Your task to perform on an android device: check google app version Image 0: 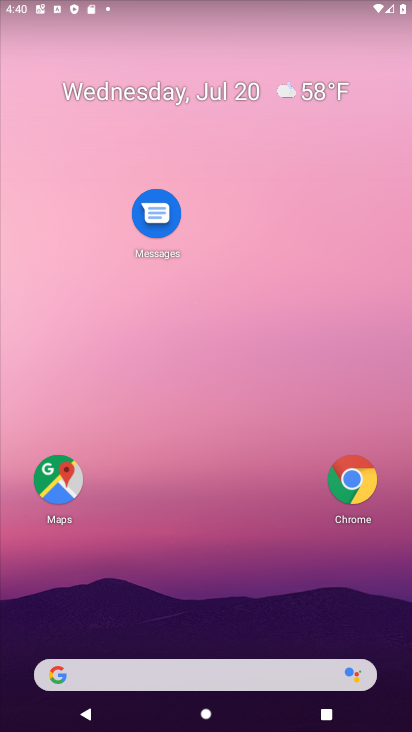
Step 0: click (52, 670)
Your task to perform on an android device: check google app version Image 1: 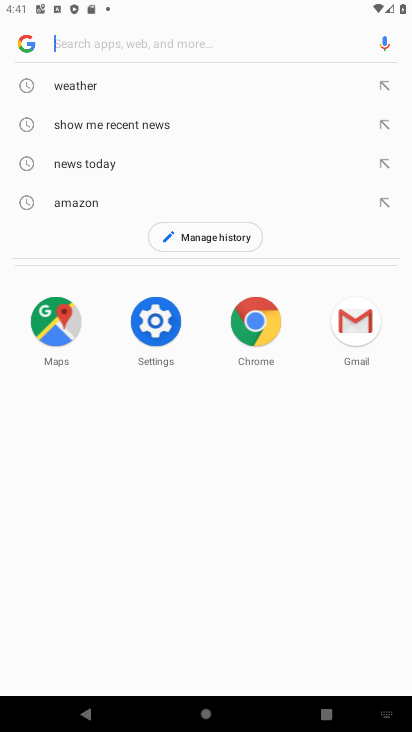
Step 1: click (26, 44)
Your task to perform on an android device: check google app version Image 2: 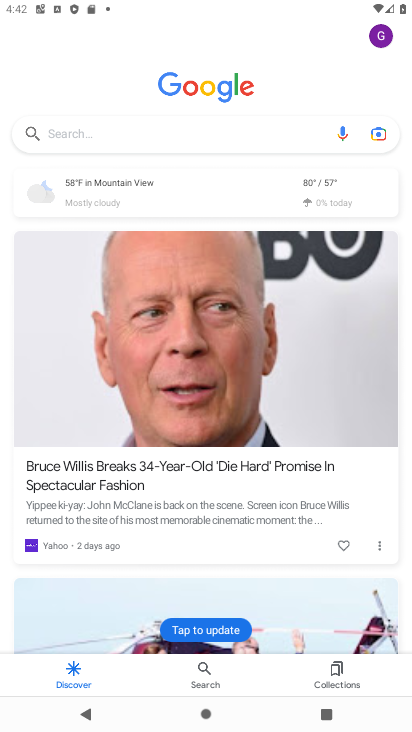
Step 2: click (386, 27)
Your task to perform on an android device: check google app version Image 3: 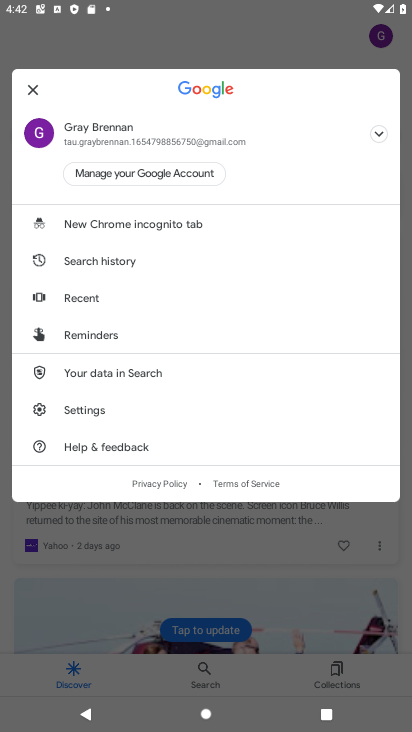
Step 3: click (77, 416)
Your task to perform on an android device: check google app version Image 4: 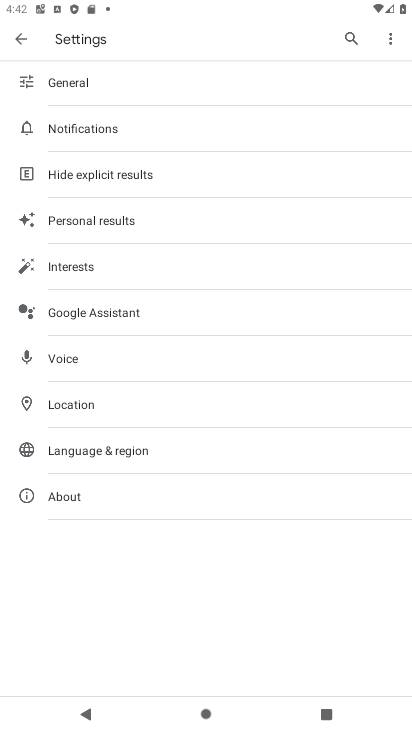
Step 4: click (54, 487)
Your task to perform on an android device: check google app version Image 5: 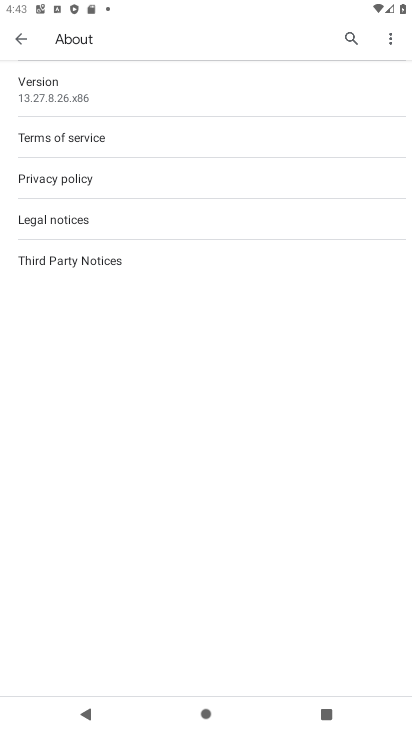
Step 5: task complete